Your task to perform on an android device: clear history in the chrome app Image 0: 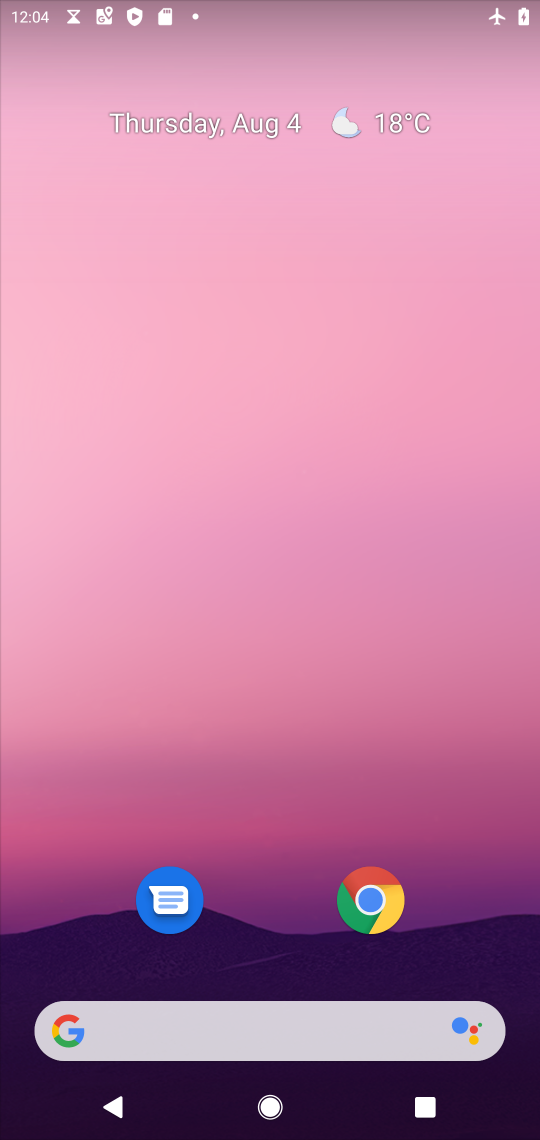
Step 0: click (377, 898)
Your task to perform on an android device: clear history in the chrome app Image 1: 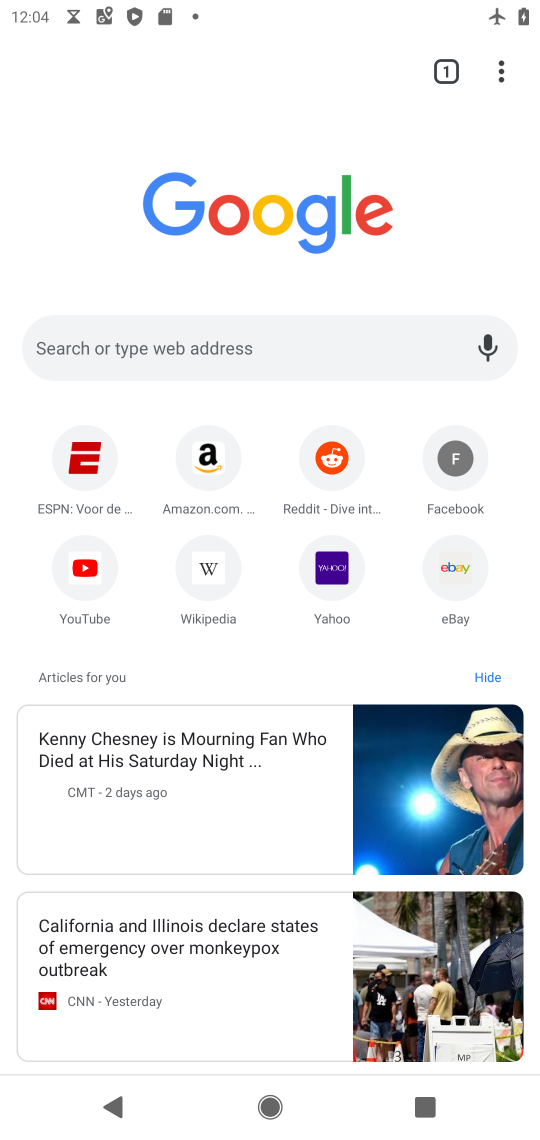
Step 1: drag from (502, 78) to (239, 601)
Your task to perform on an android device: clear history in the chrome app Image 2: 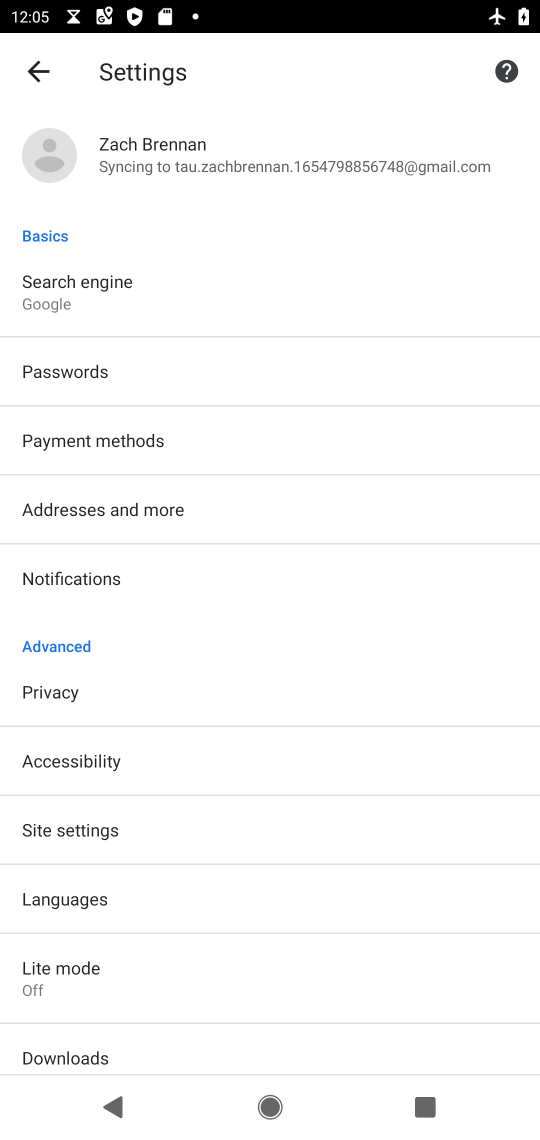
Step 2: click (22, 691)
Your task to perform on an android device: clear history in the chrome app Image 3: 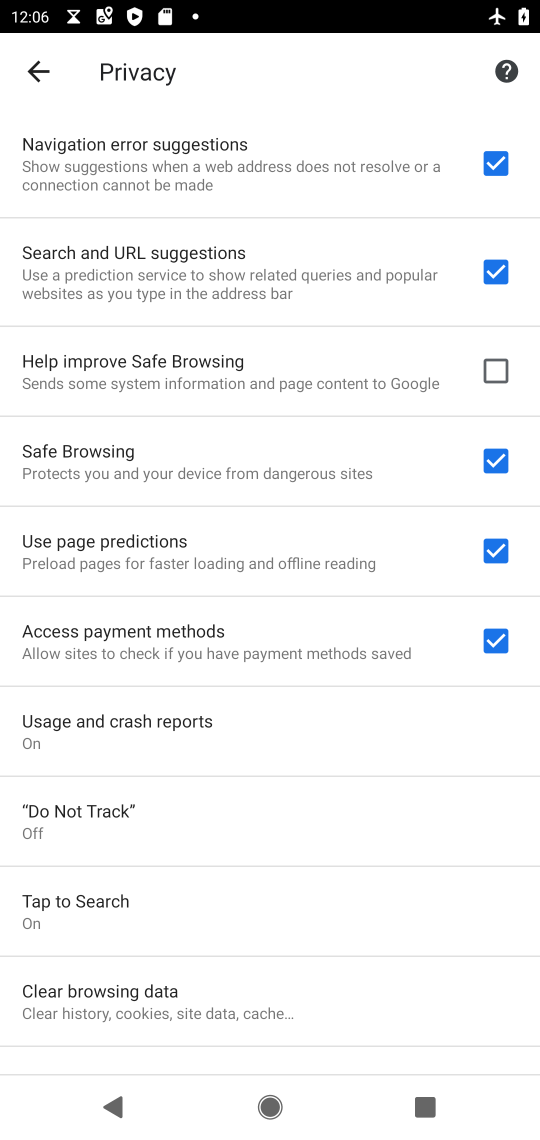
Step 3: drag from (320, 909) to (294, 499)
Your task to perform on an android device: clear history in the chrome app Image 4: 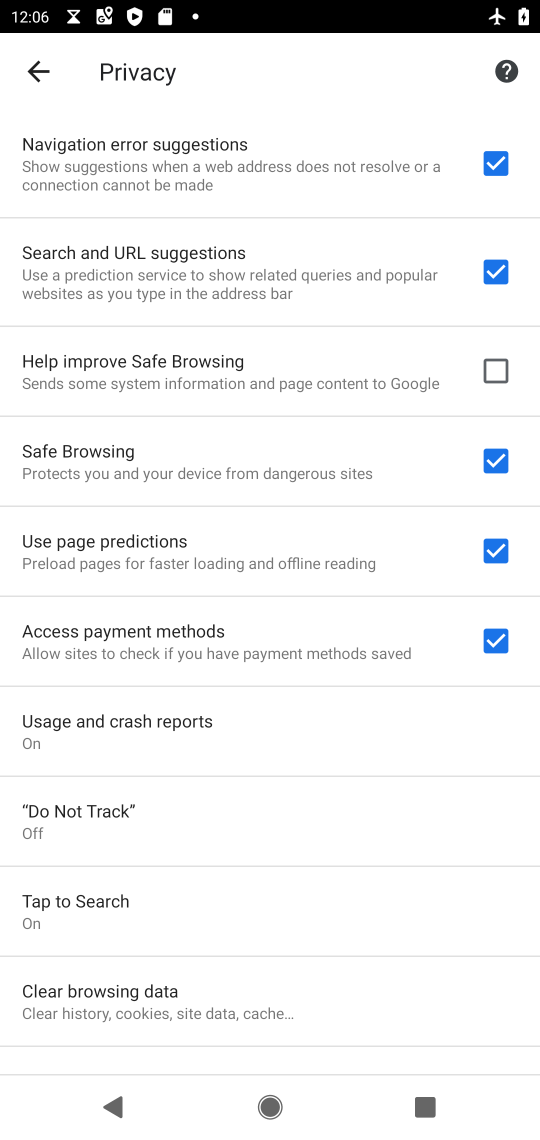
Step 4: click (99, 1004)
Your task to perform on an android device: clear history in the chrome app Image 5: 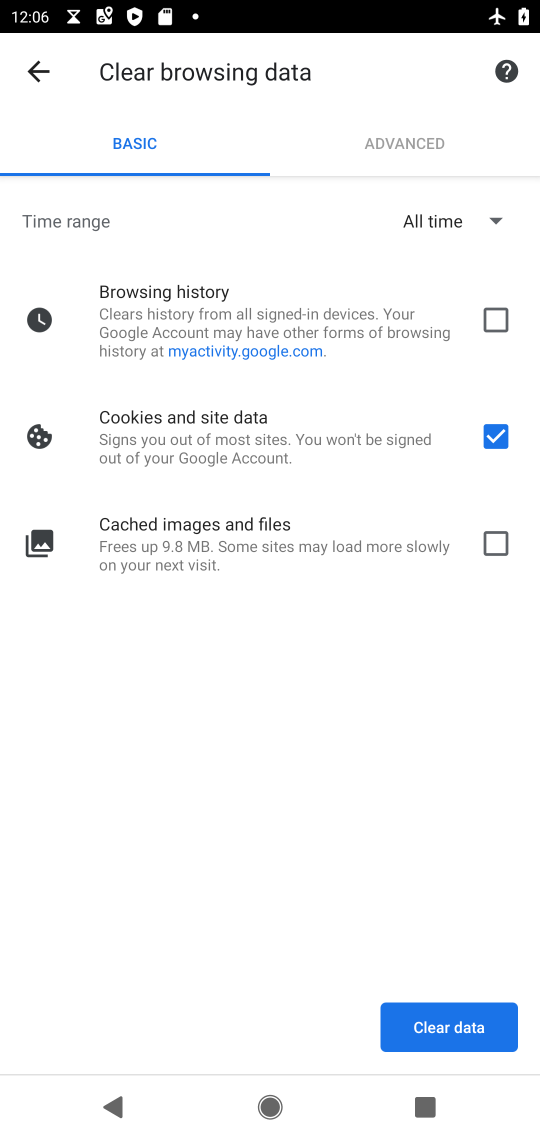
Step 5: click (496, 321)
Your task to perform on an android device: clear history in the chrome app Image 6: 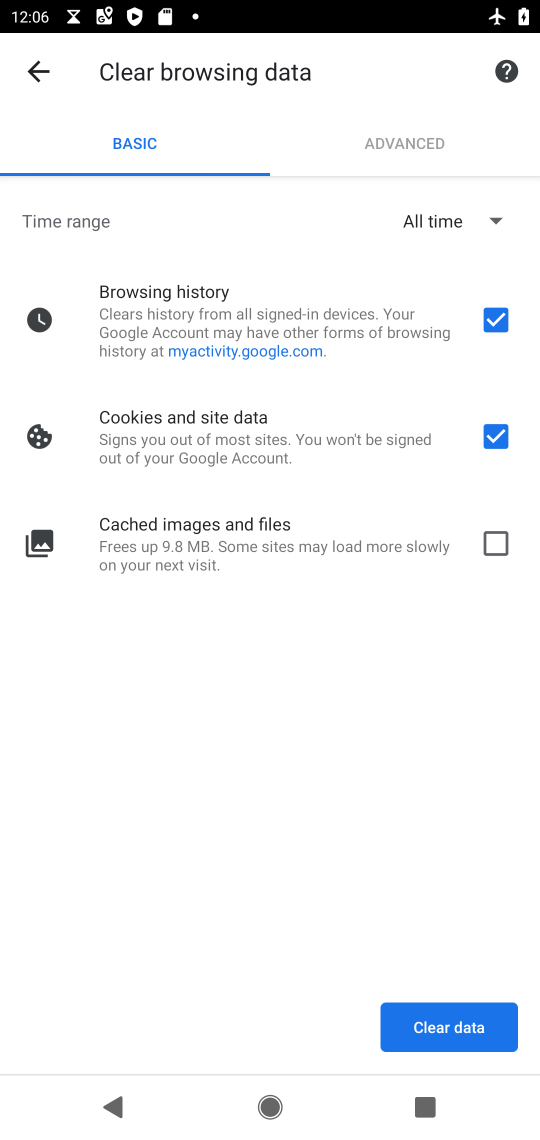
Step 6: click (497, 436)
Your task to perform on an android device: clear history in the chrome app Image 7: 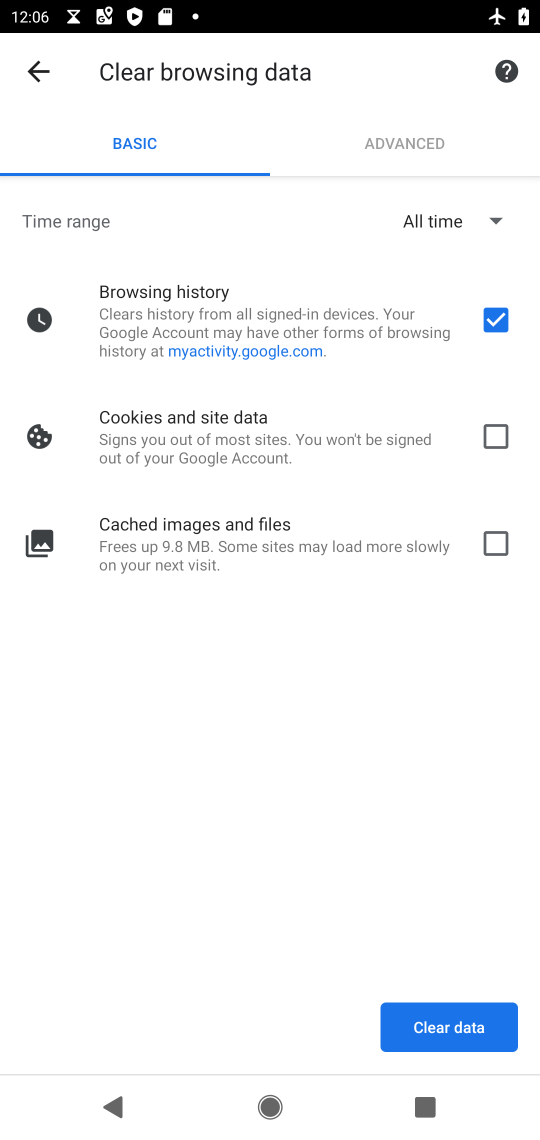
Step 7: click (460, 1028)
Your task to perform on an android device: clear history in the chrome app Image 8: 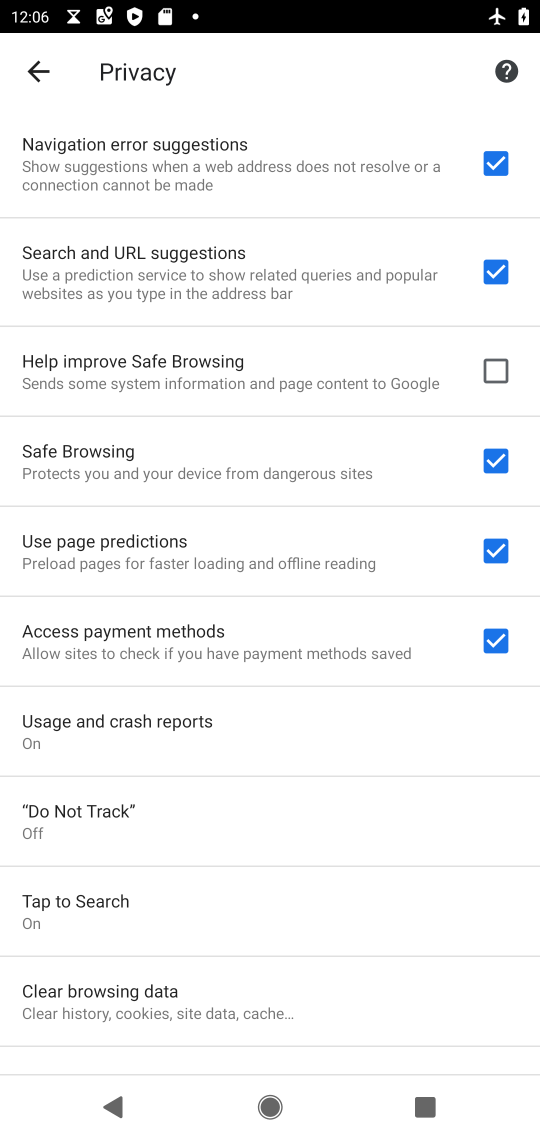
Step 8: task complete